Your task to perform on an android device: turn on improve location accuracy Image 0: 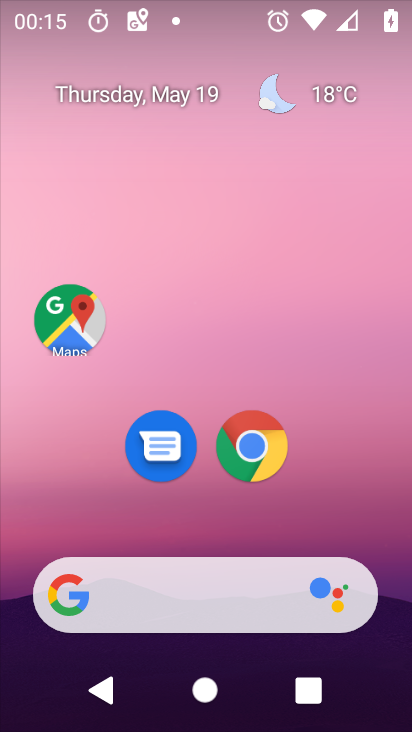
Step 0: press home button
Your task to perform on an android device: turn on improve location accuracy Image 1: 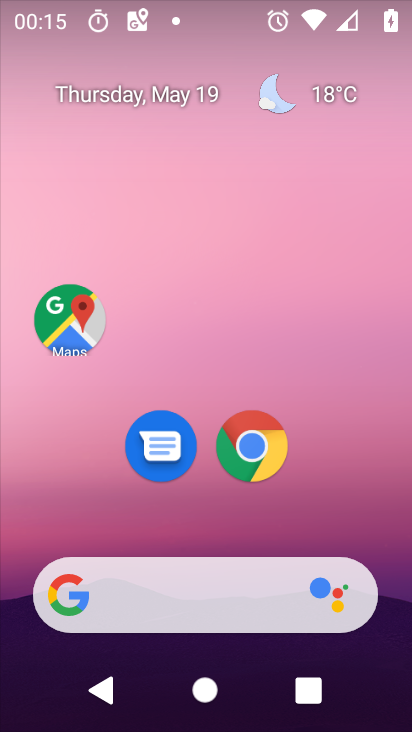
Step 1: drag from (184, 595) to (306, 110)
Your task to perform on an android device: turn on improve location accuracy Image 2: 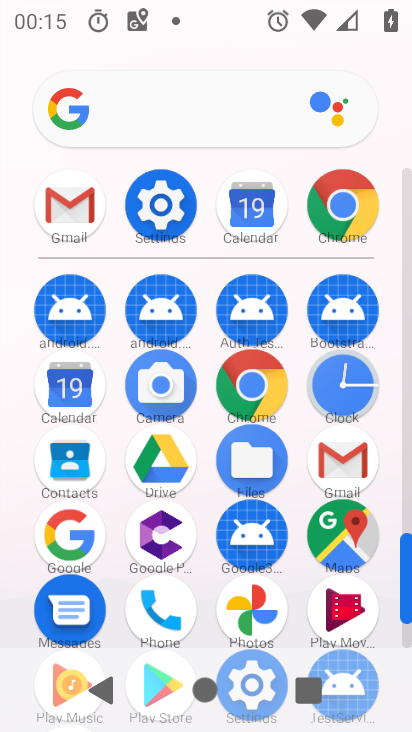
Step 2: click (172, 213)
Your task to perform on an android device: turn on improve location accuracy Image 3: 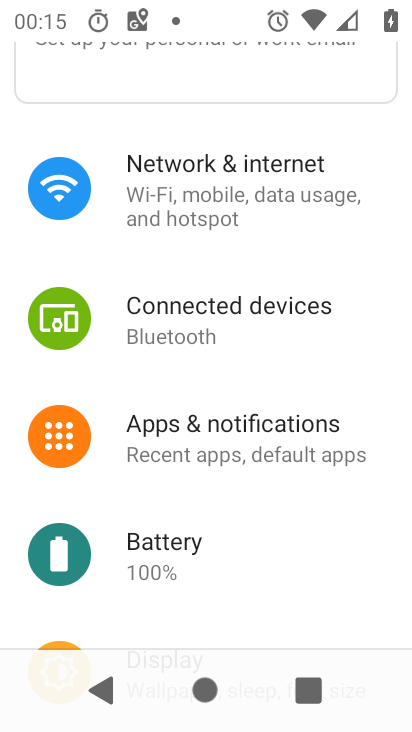
Step 3: drag from (249, 596) to (392, 155)
Your task to perform on an android device: turn on improve location accuracy Image 4: 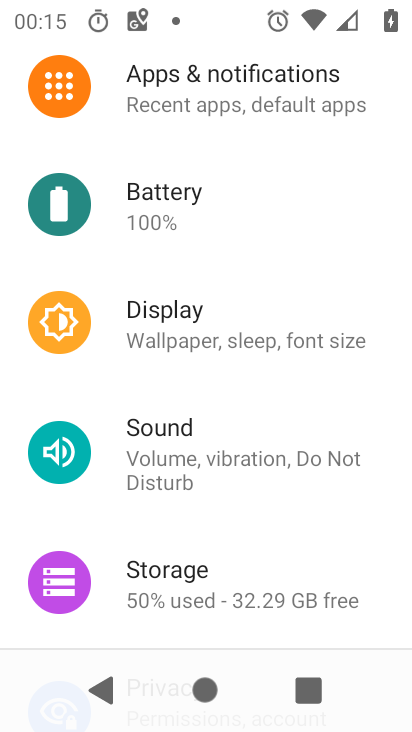
Step 4: drag from (206, 587) to (327, 63)
Your task to perform on an android device: turn on improve location accuracy Image 5: 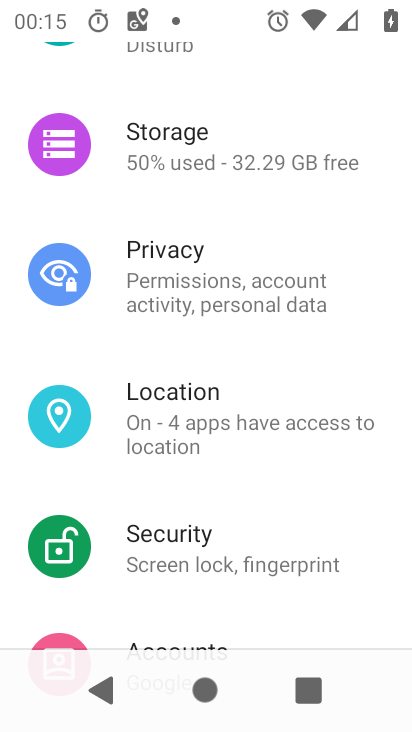
Step 5: click (197, 397)
Your task to perform on an android device: turn on improve location accuracy Image 6: 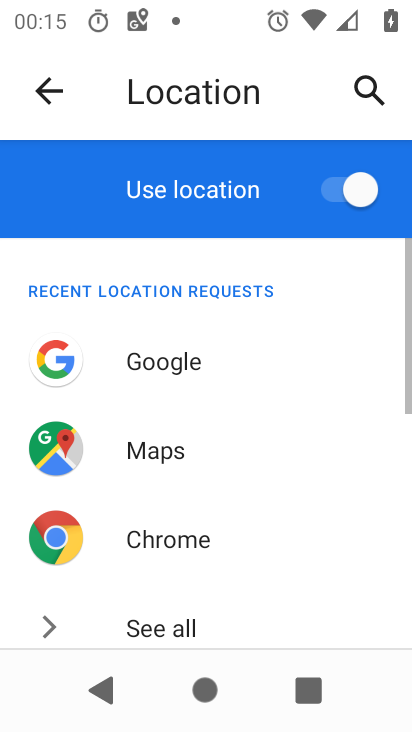
Step 6: drag from (239, 565) to (316, 292)
Your task to perform on an android device: turn on improve location accuracy Image 7: 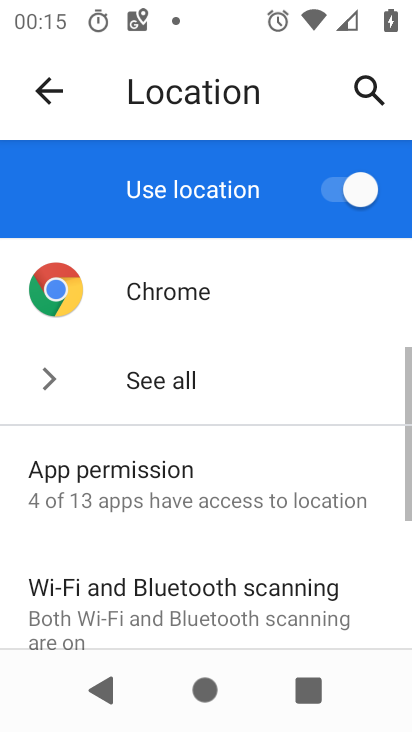
Step 7: drag from (214, 555) to (303, 258)
Your task to perform on an android device: turn on improve location accuracy Image 8: 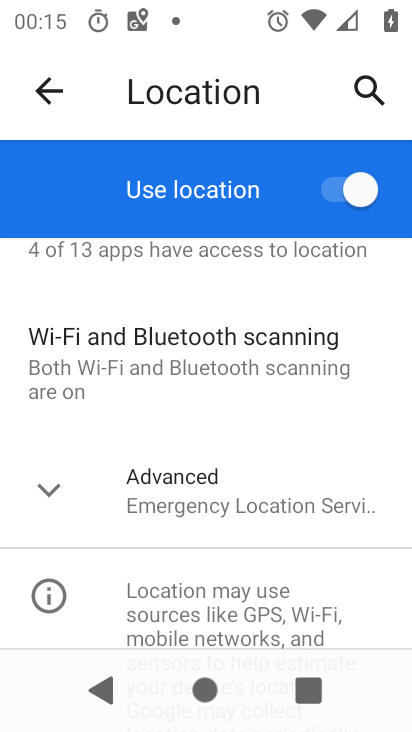
Step 8: click (199, 513)
Your task to perform on an android device: turn on improve location accuracy Image 9: 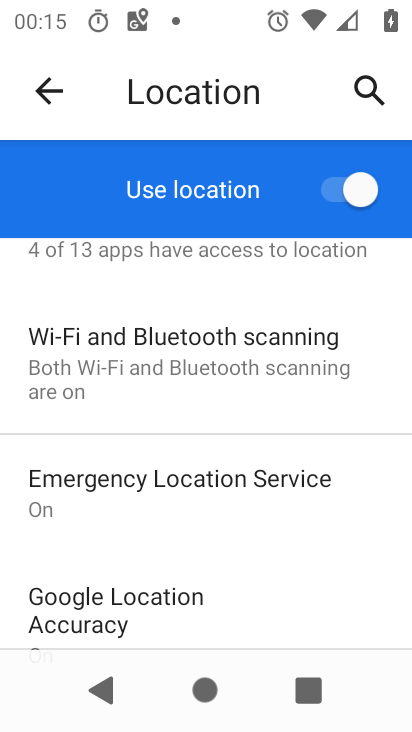
Step 9: drag from (239, 623) to (326, 313)
Your task to perform on an android device: turn on improve location accuracy Image 10: 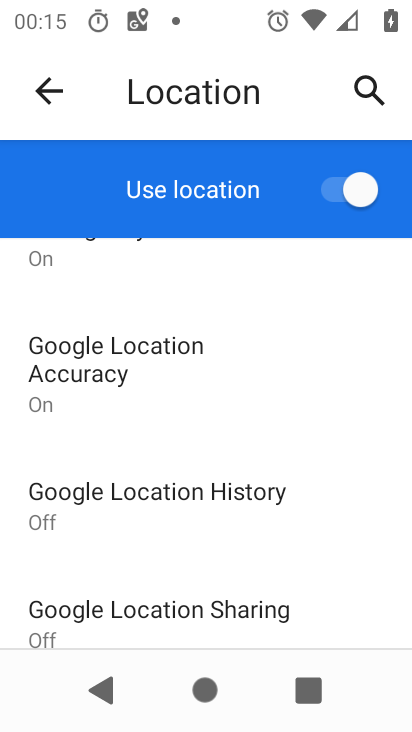
Step 10: click (138, 374)
Your task to perform on an android device: turn on improve location accuracy Image 11: 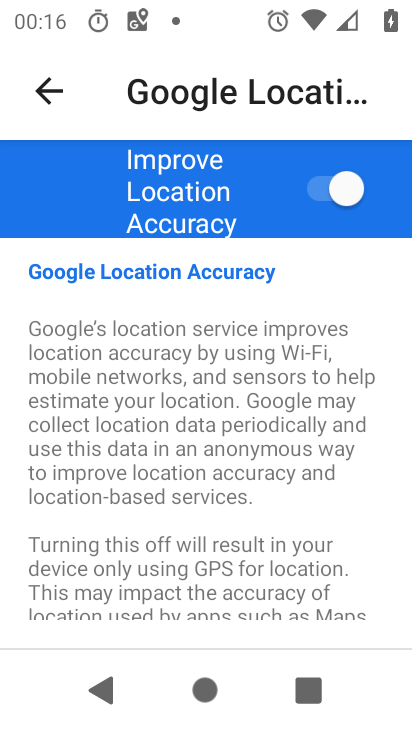
Step 11: task complete